Your task to perform on an android device: turn off wifi Image 0: 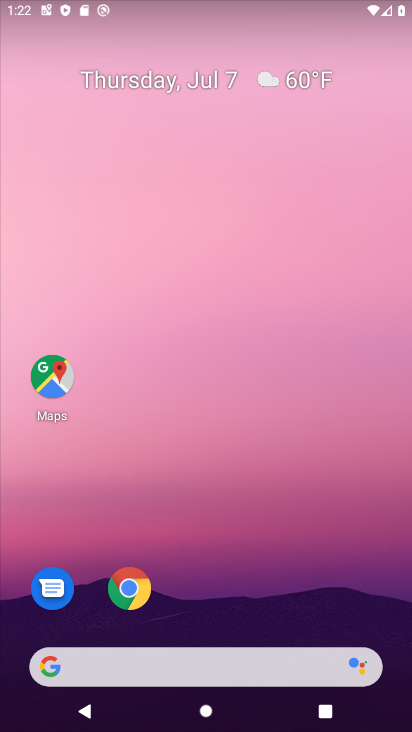
Step 0: drag from (234, 644) to (229, 228)
Your task to perform on an android device: turn off wifi Image 1: 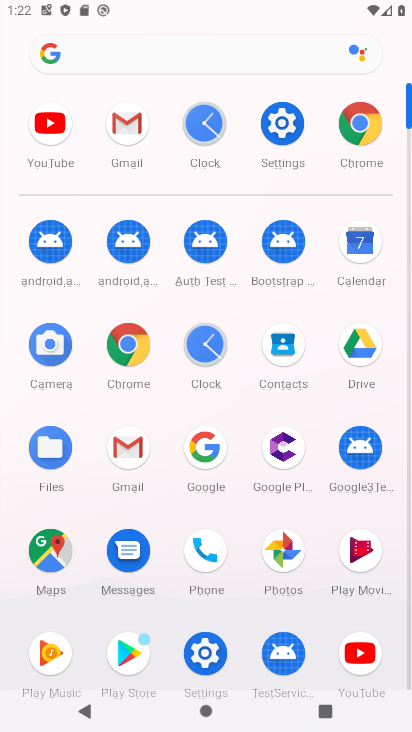
Step 1: click (288, 108)
Your task to perform on an android device: turn off wifi Image 2: 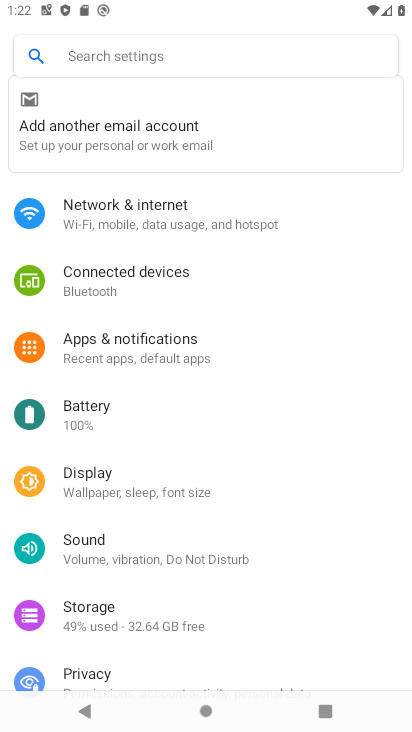
Step 2: click (162, 201)
Your task to perform on an android device: turn off wifi Image 3: 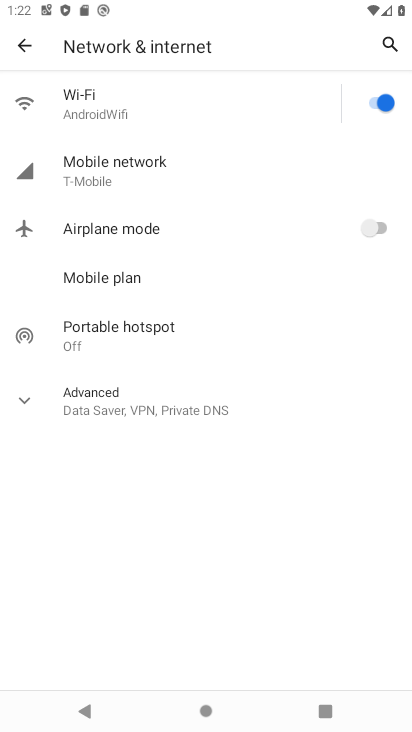
Step 3: click (153, 100)
Your task to perform on an android device: turn off wifi Image 4: 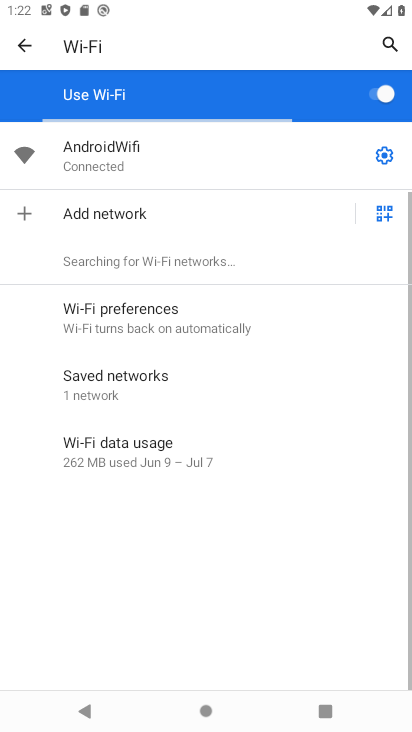
Step 4: click (376, 87)
Your task to perform on an android device: turn off wifi Image 5: 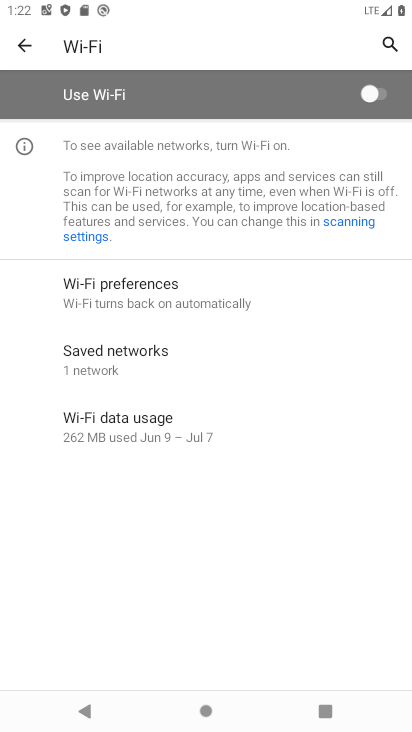
Step 5: task complete